Your task to perform on an android device: Do I have any events this weekend? Image 0: 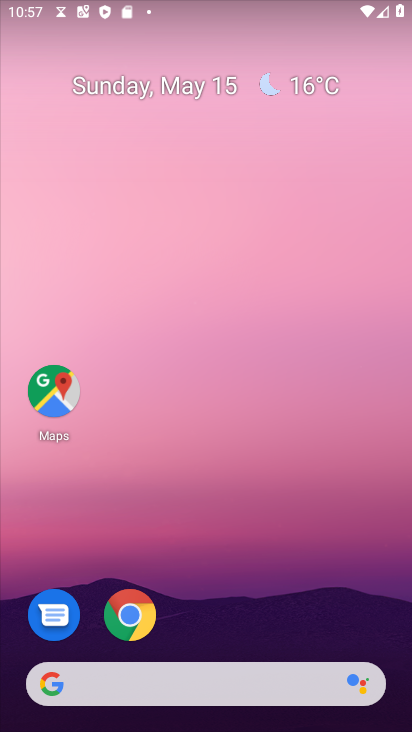
Step 0: drag from (280, 693) to (226, 72)
Your task to perform on an android device: Do I have any events this weekend? Image 1: 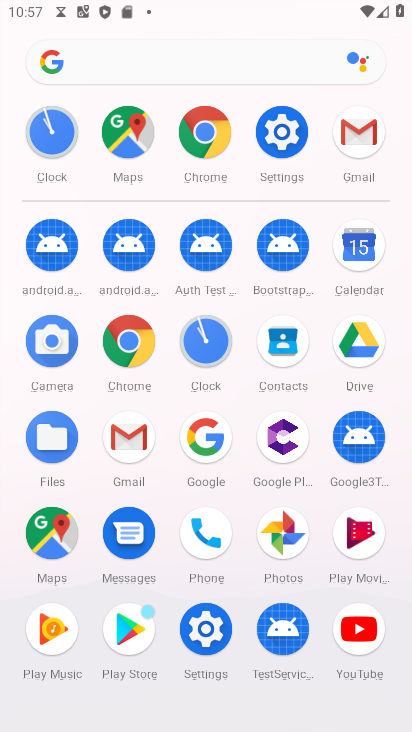
Step 1: click (346, 238)
Your task to perform on an android device: Do I have any events this weekend? Image 2: 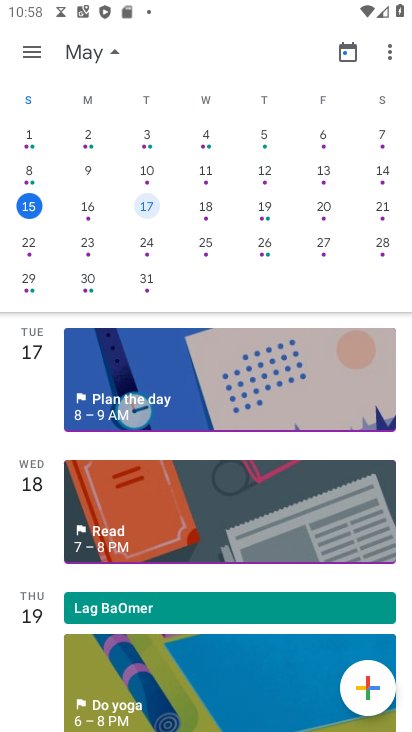
Step 2: click (375, 207)
Your task to perform on an android device: Do I have any events this weekend? Image 3: 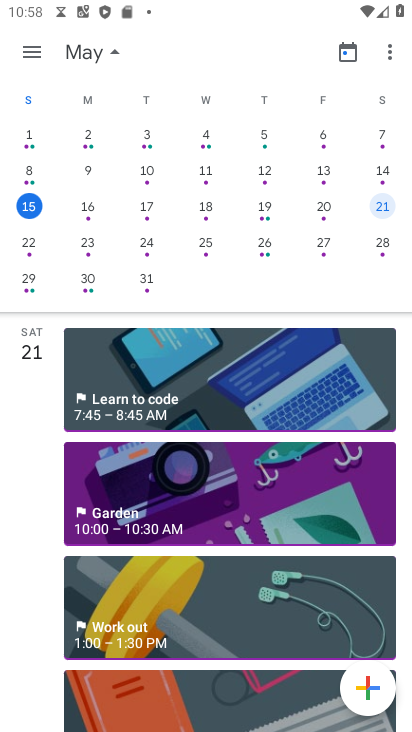
Step 3: task complete